Your task to perform on an android device: Open Android settings Image 0: 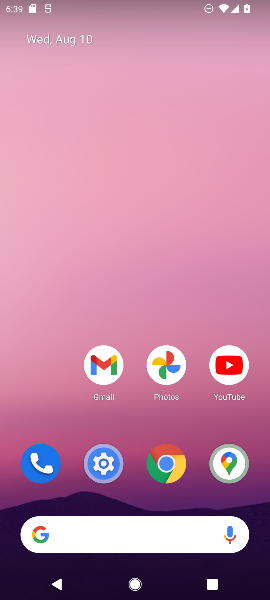
Step 0: click (99, 458)
Your task to perform on an android device: Open Android settings Image 1: 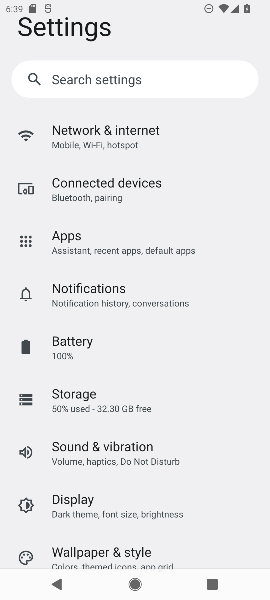
Step 1: task complete